Your task to perform on an android device: check android version Image 0: 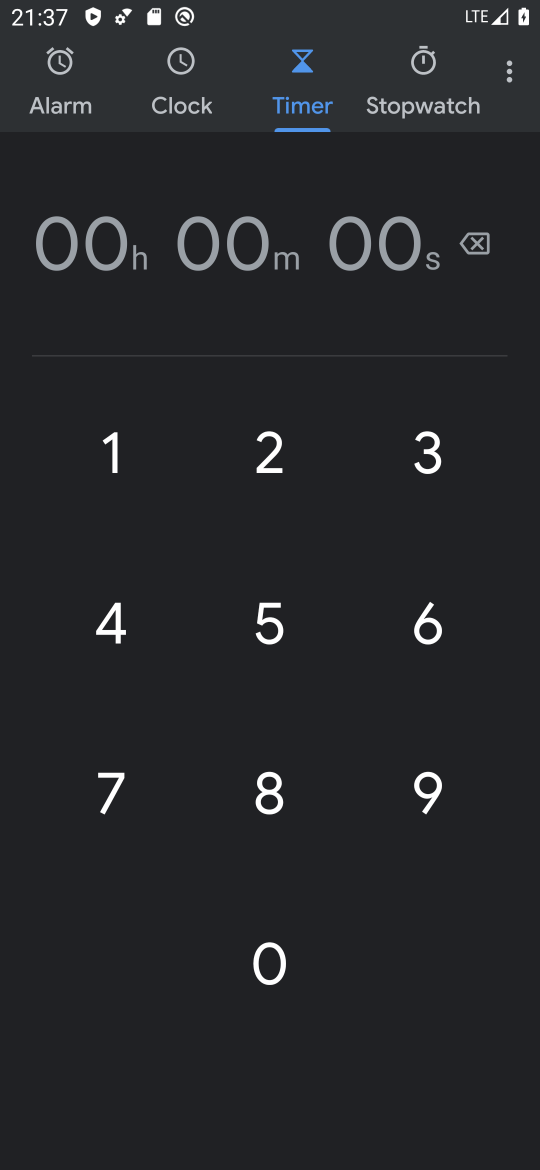
Step 0: press home button
Your task to perform on an android device: check android version Image 1: 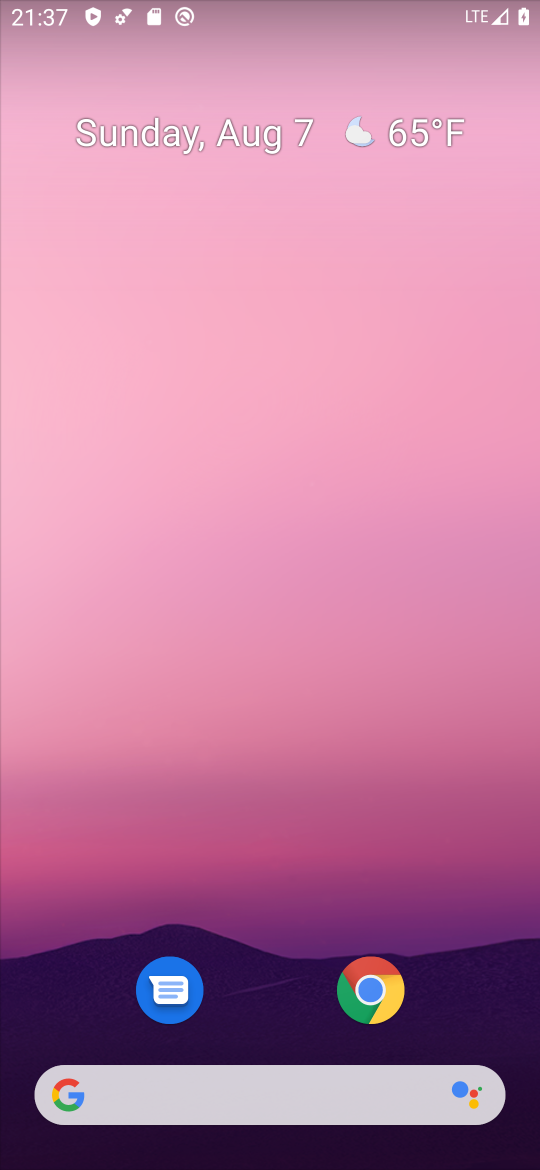
Step 1: drag from (305, 996) to (300, 15)
Your task to perform on an android device: check android version Image 2: 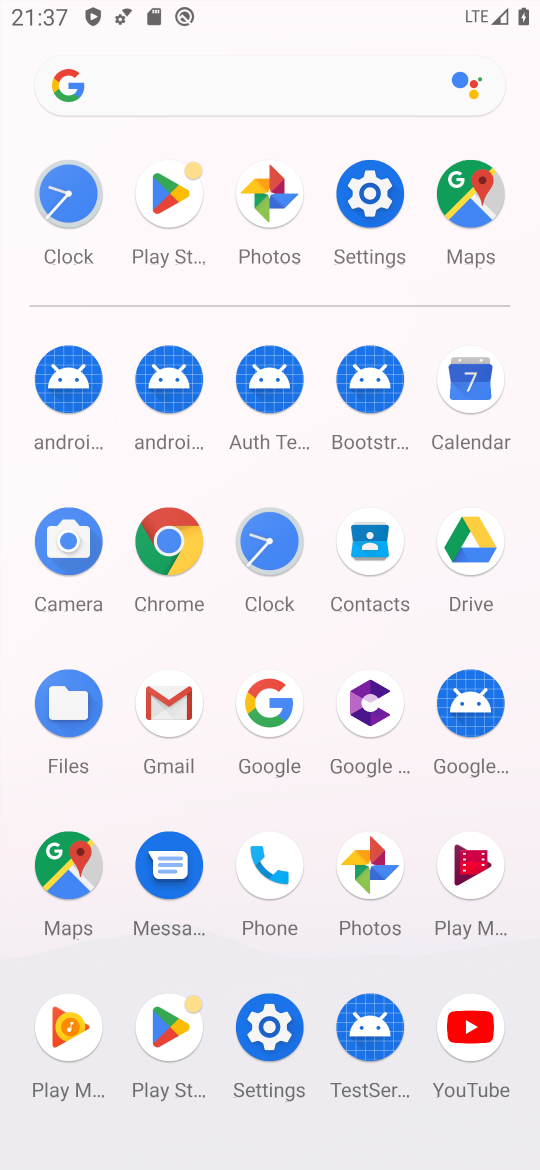
Step 2: click (285, 1026)
Your task to perform on an android device: check android version Image 3: 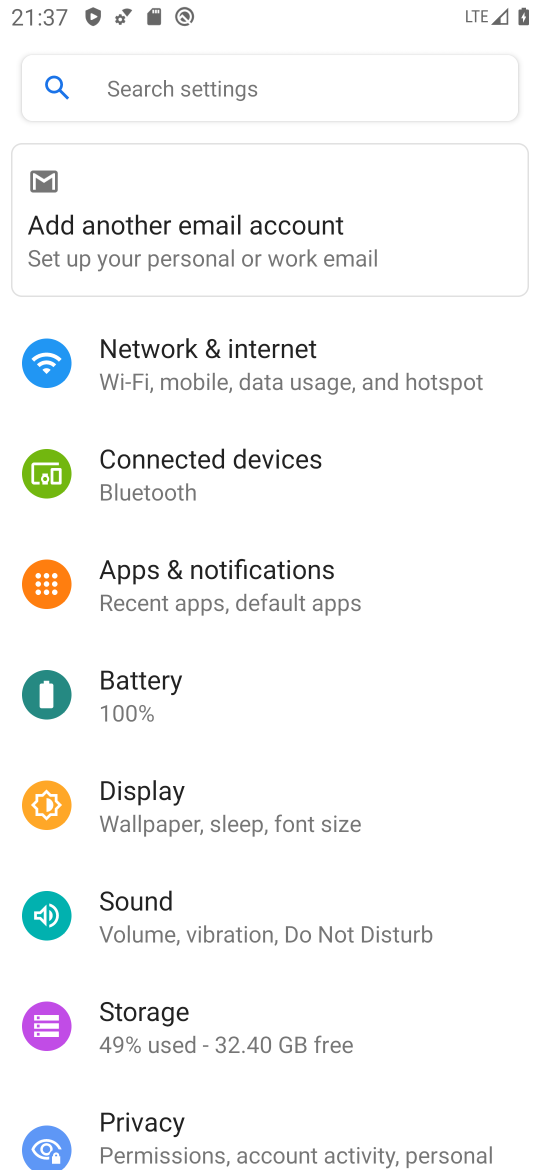
Step 3: drag from (350, 986) to (390, 0)
Your task to perform on an android device: check android version Image 4: 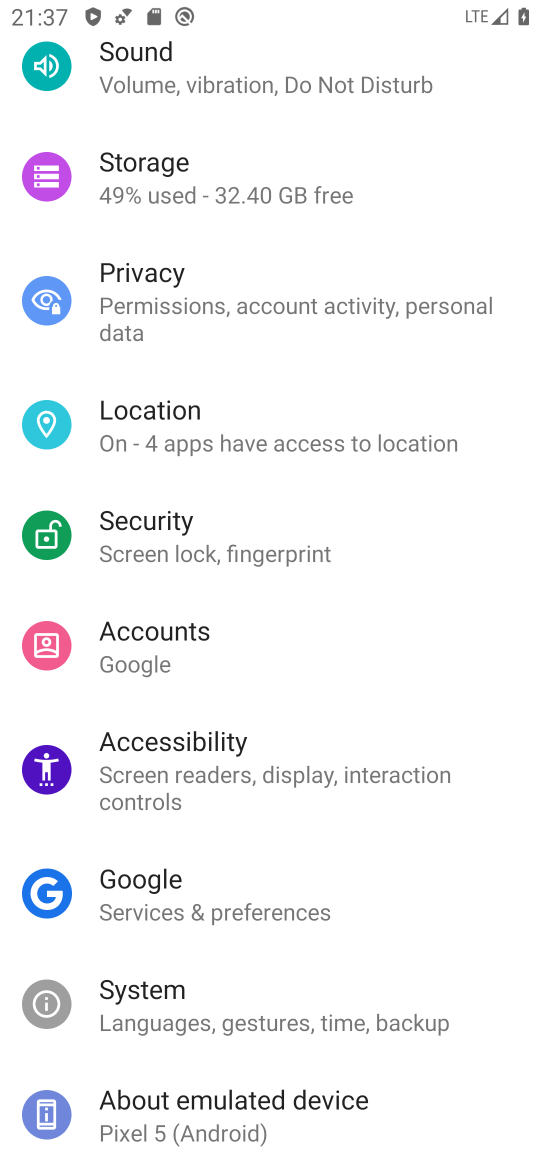
Step 4: click (263, 1109)
Your task to perform on an android device: check android version Image 5: 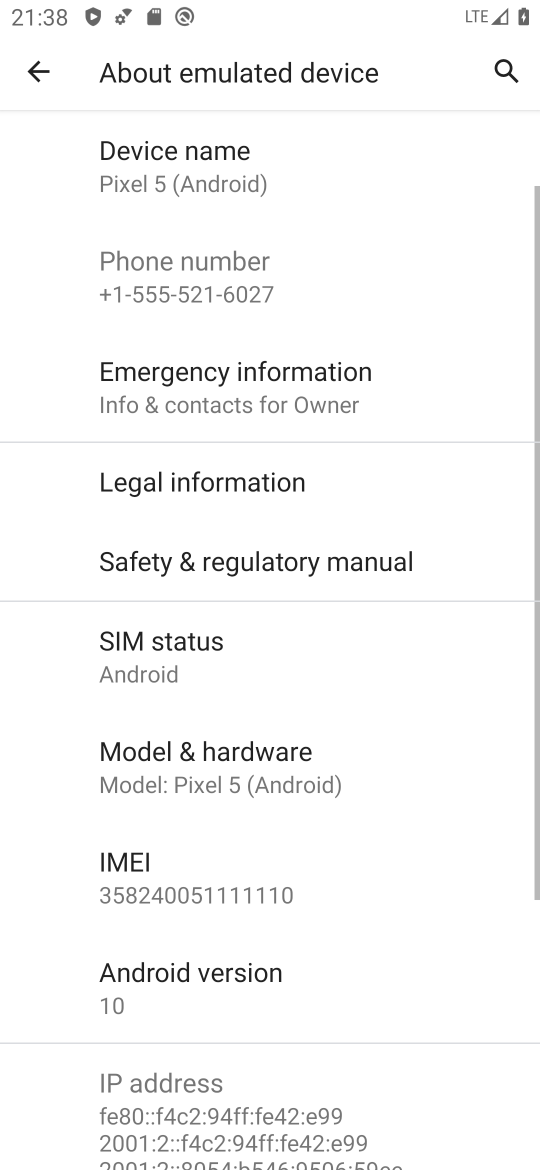
Step 5: click (210, 997)
Your task to perform on an android device: check android version Image 6: 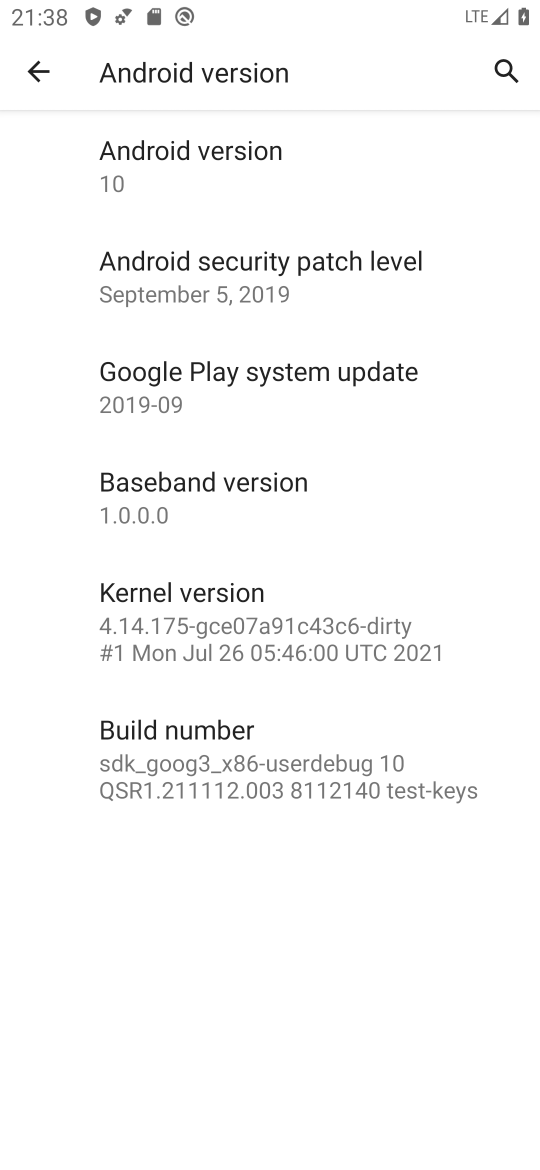
Step 6: task complete